Your task to perform on an android device: Show me the alarms in the clock app Image 0: 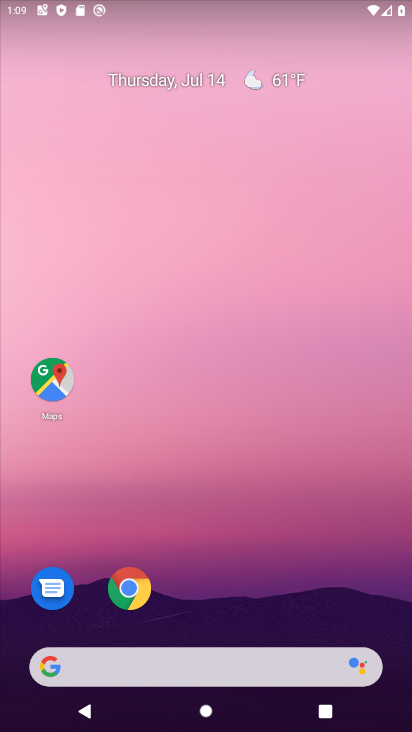
Step 0: drag from (224, 631) to (303, 288)
Your task to perform on an android device: Show me the alarms in the clock app Image 1: 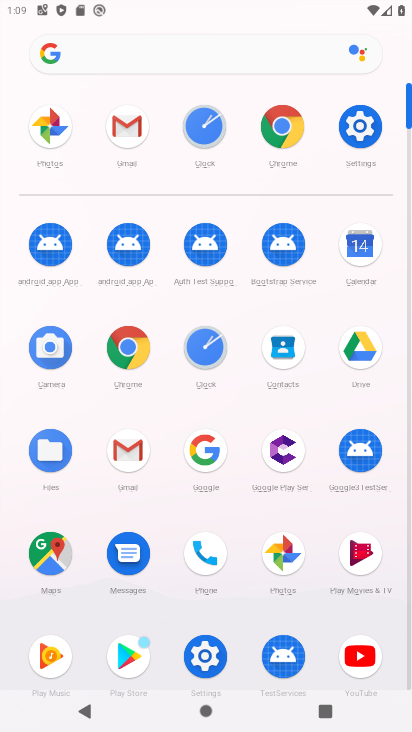
Step 1: click (207, 328)
Your task to perform on an android device: Show me the alarms in the clock app Image 2: 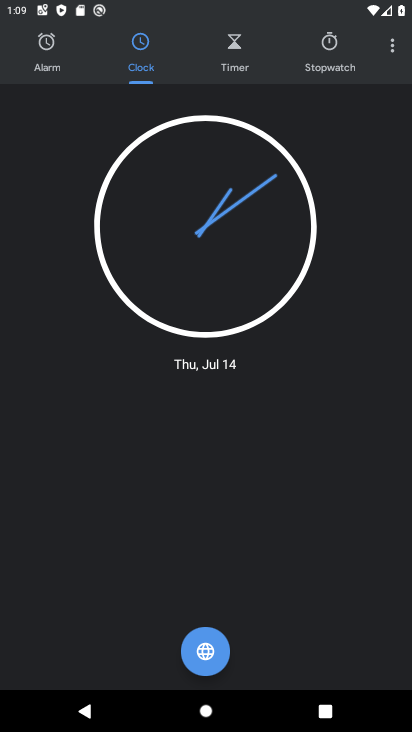
Step 2: click (61, 63)
Your task to perform on an android device: Show me the alarms in the clock app Image 3: 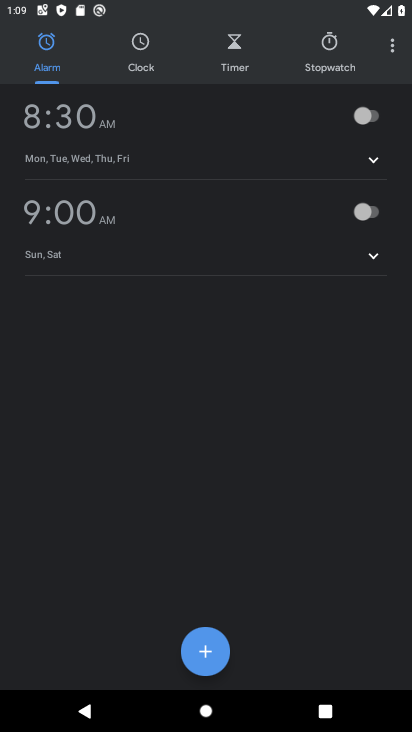
Step 3: task complete